Your task to perform on an android device: change your default location settings in chrome Image 0: 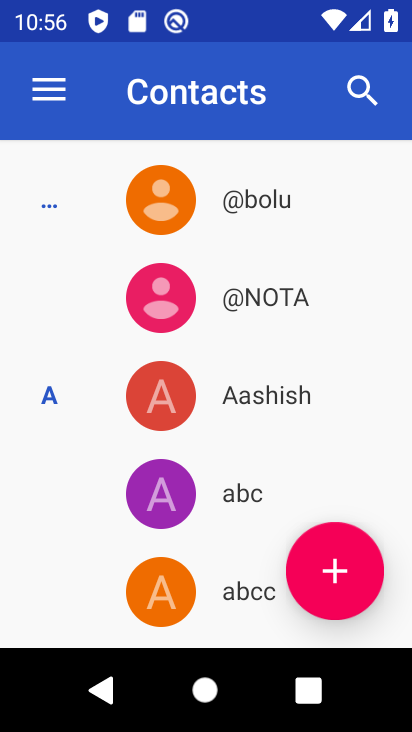
Step 0: drag from (198, 587) to (271, 115)
Your task to perform on an android device: change your default location settings in chrome Image 1: 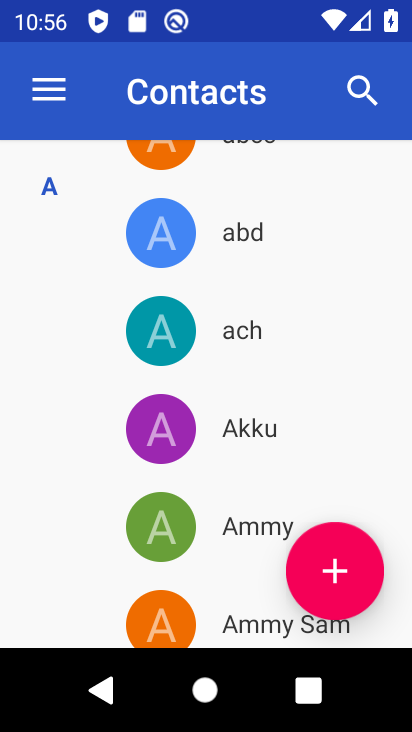
Step 1: press home button
Your task to perform on an android device: change your default location settings in chrome Image 2: 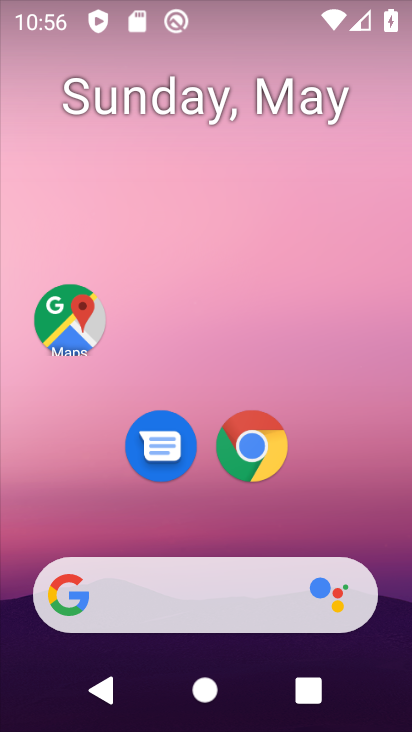
Step 2: click (245, 463)
Your task to perform on an android device: change your default location settings in chrome Image 3: 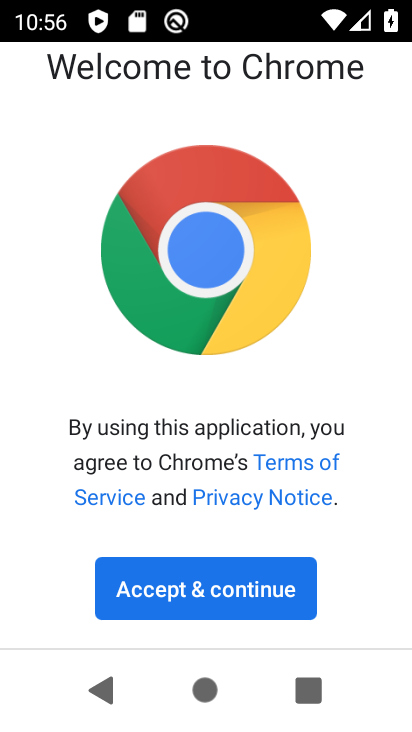
Step 3: click (205, 600)
Your task to perform on an android device: change your default location settings in chrome Image 4: 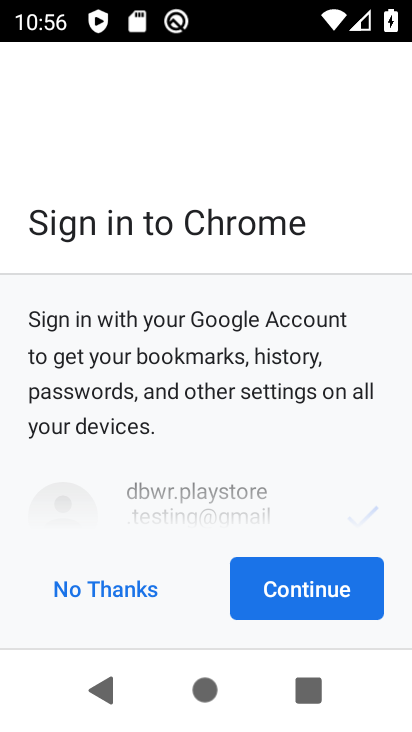
Step 4: click (294, 613)
Your task to perform on an android device: change your default location settings in chrome Image 5: 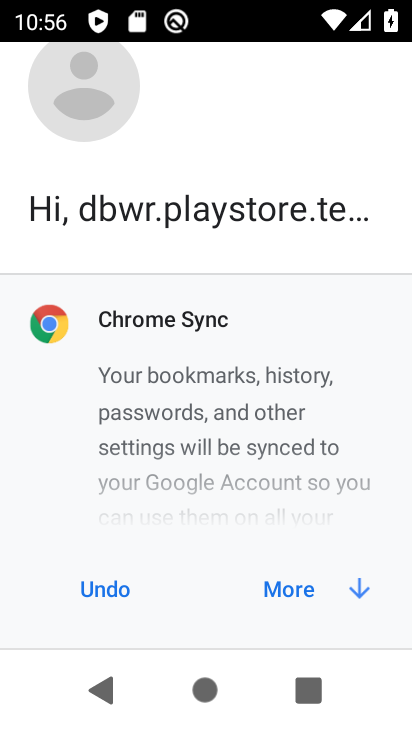
Step 5: click (296, 598)
Your task to perform on an android device: change your default location settings in chrome Image 6: 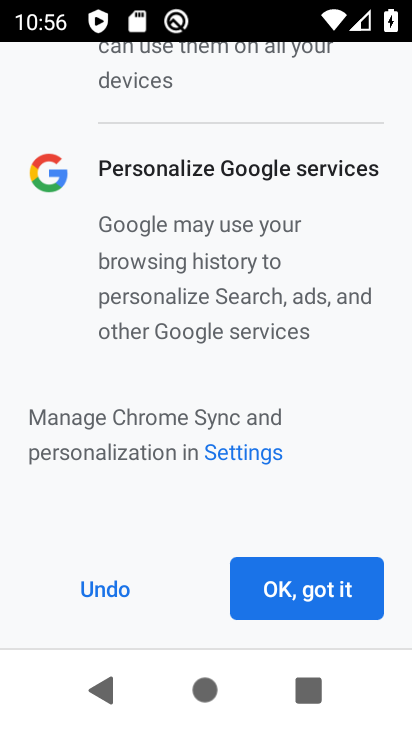
Step 6: click (296, 598)
Your task to perform on an android device: change your default location settings in chrome Image 7: 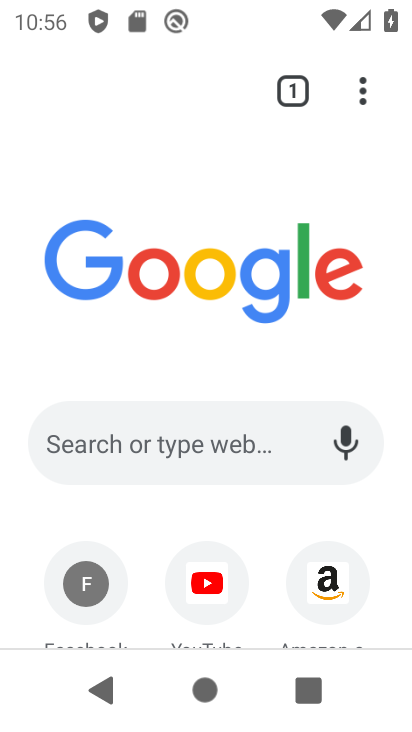
Step 7: click (368, 110)
Your task to perform on an android device: change your default location settings in chrome Image 8: 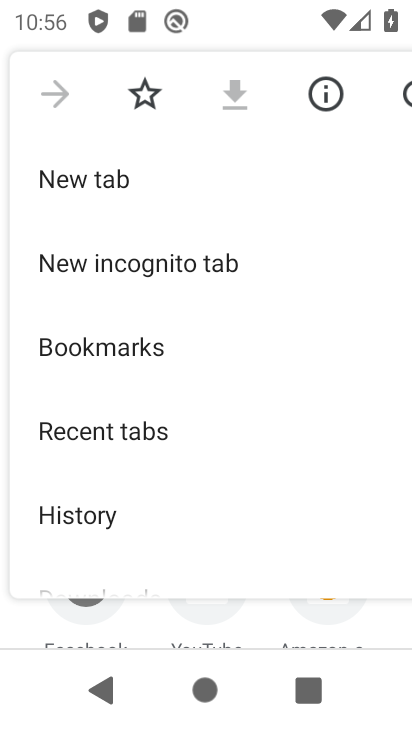
Step 8: drag from (182, 514) to (229, 15)
Your task to perform on an android device: change your default location settings in chrome Image 9: 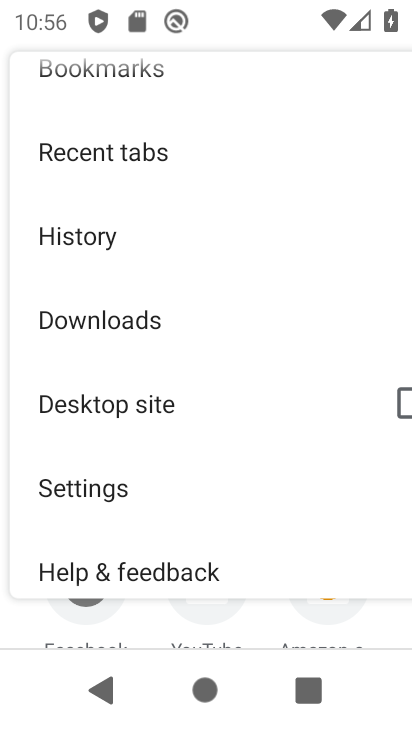
Step 9: click (104, 489)
Your task to perform on an android device: change your default location settings in chrome Image 10: 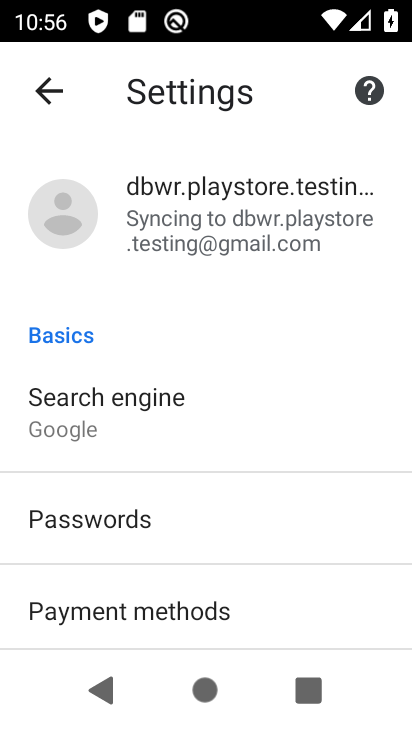
Step 10: drag from (245, 497) to (291, 126)
Your task to perform on an android device: change your default location settings in chrome Image 11: 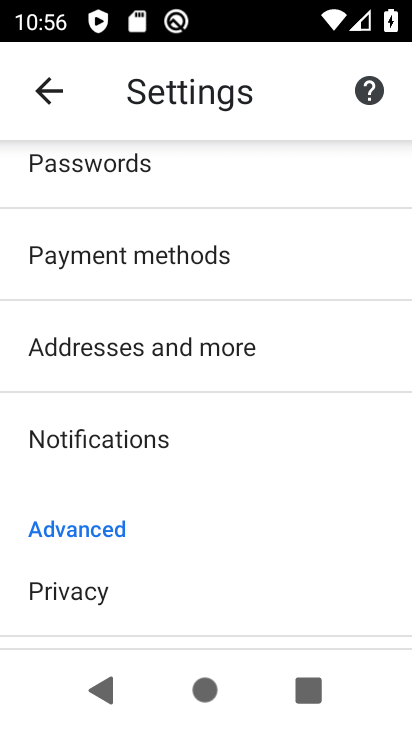
Step 11: drag from (203, 471) to (258, 94)
Your task to perform on an android device: change your default location settings in chrome Image 12: 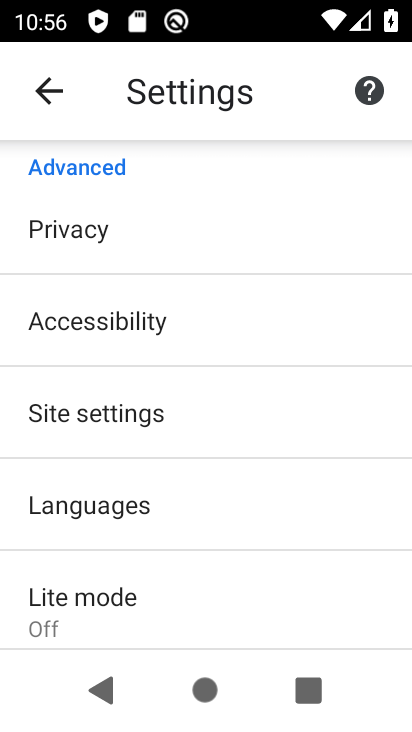
Step 12: click (205, 404)
Your task to perform on an android device: change your default location settings in chrome Image 13: 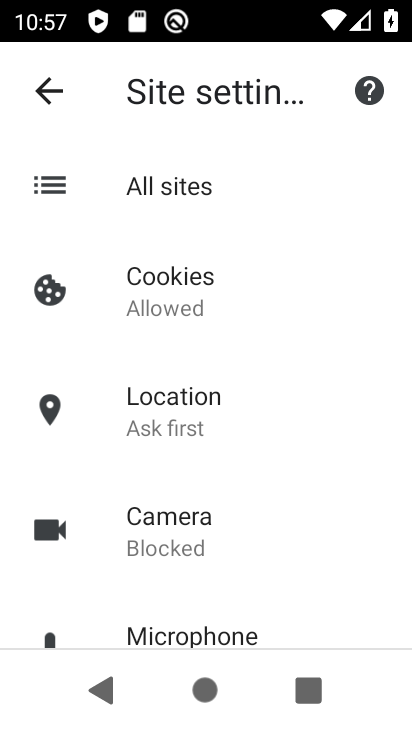
Step 13: click (205, 404)
Your task to perform on an android device: change your default location settings in chrome Image 14: 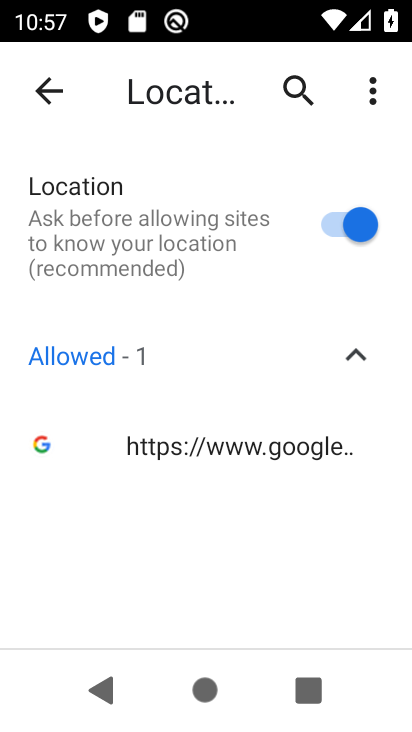
Step 14: click (338, 230)
Your task to perform on an android device: change your default location settings in chrome Image 15: 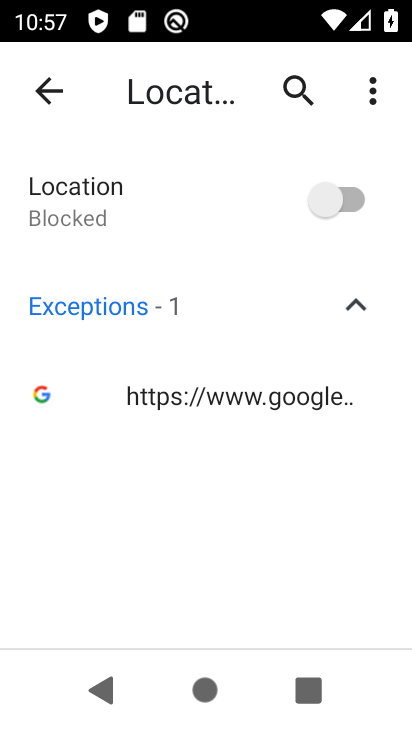
Step 15: task complete